Your task to perform on an android device: turn off wifi Image 0: 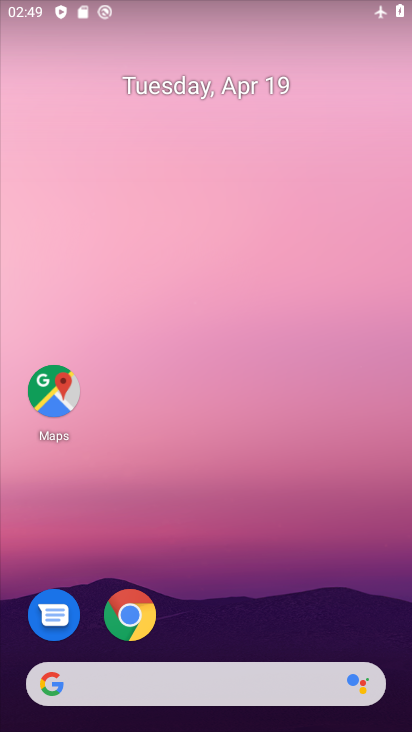
Step 0: drag from (208, 567) to (263, 250)
Your task to perform on an android device: turn off wifi Image 1: 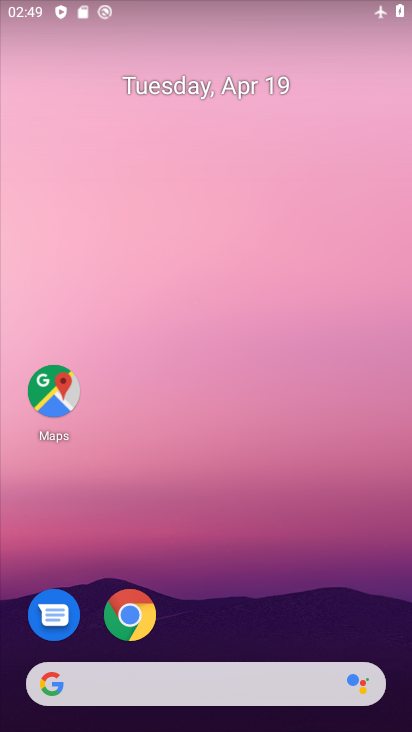
Step 1: drag from (229, 456) to (229, 222)
Your task to perform on an android device: turn off wifi Image 2: 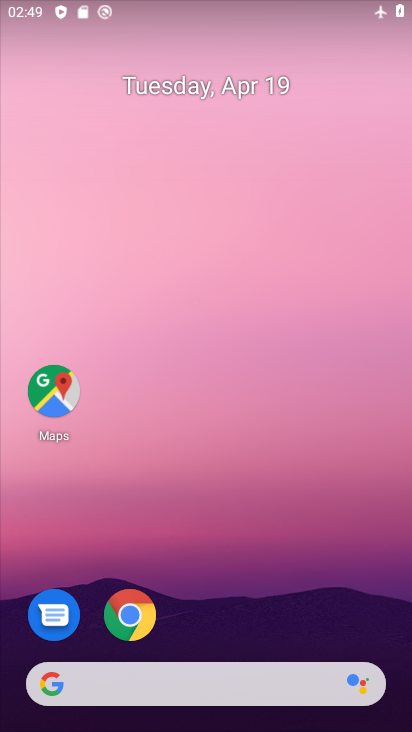
Step 2: drag from (234, 576) to (278, 164)
Your task to perform on an android device: turn off wifi Image 3: 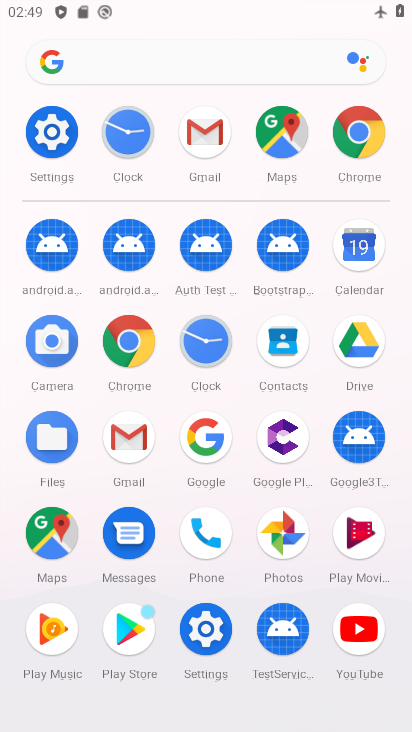
Step 3: click (48, 124)
Your task to perform on an android device: turn off wifi Image 4: 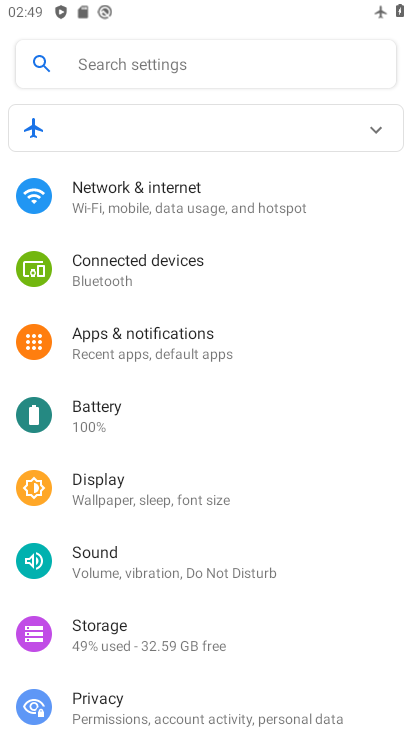
Step 4: click (179, 191)
Your task to perform on an android device: turn off wifi Image 5: 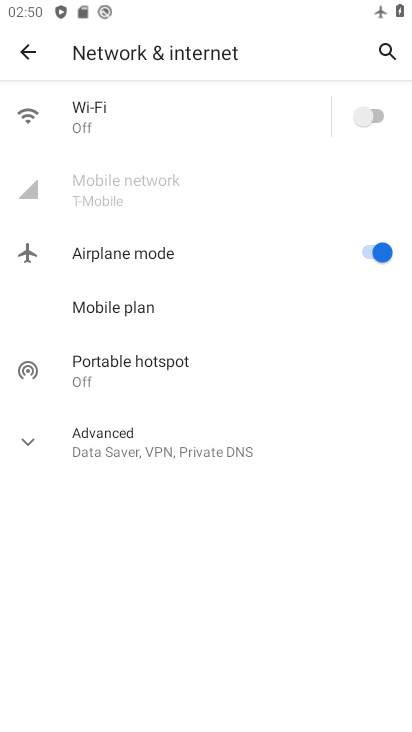
Step 5: task complete